Your task to perform on an android device: toggle show notifications on the lock screen Image 0: 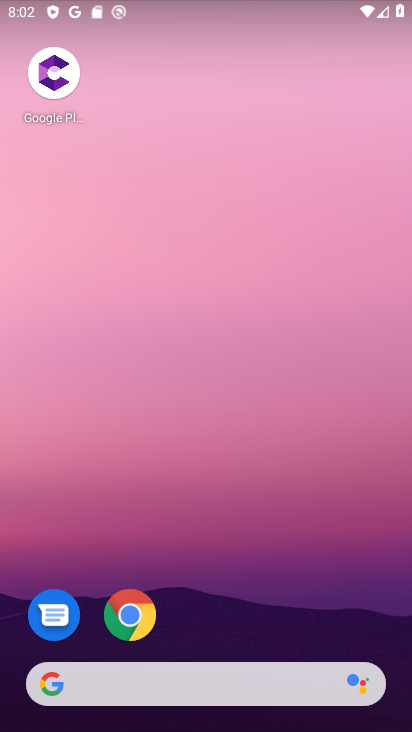
Step 0: press home button
Your task to perform on an android device: toggle show notifications on the lock screen Image 1: 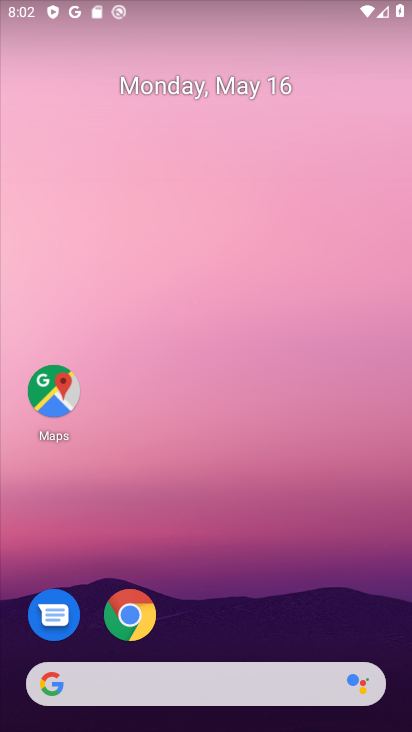
Step 1: drag from (71, 341) to (182, 80)
Your task to perform on an android device: toggle show notifications on the lock screen Image 2: 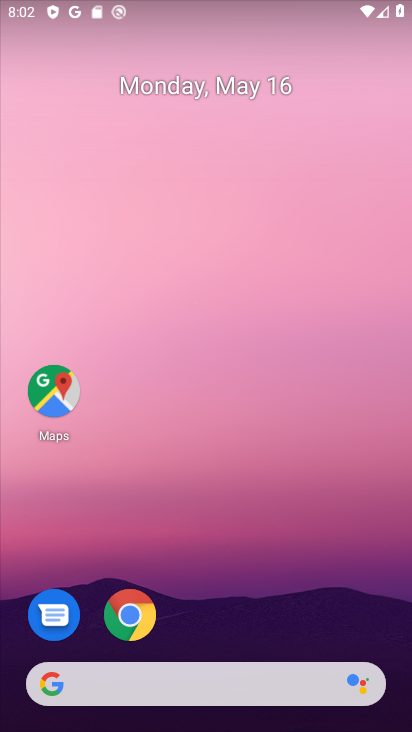
Step 2: drag from (18, 625) to (268, 66)
Your task to perform on an android device: toggle show notifications on the lock screen Image 3: 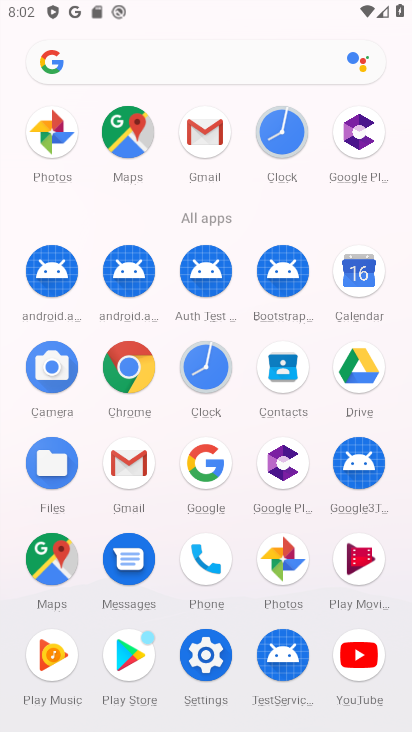
Step 3: click (189, 647)
Your task to perform on an android device: toggle show notifications on the lock screen Image 4: 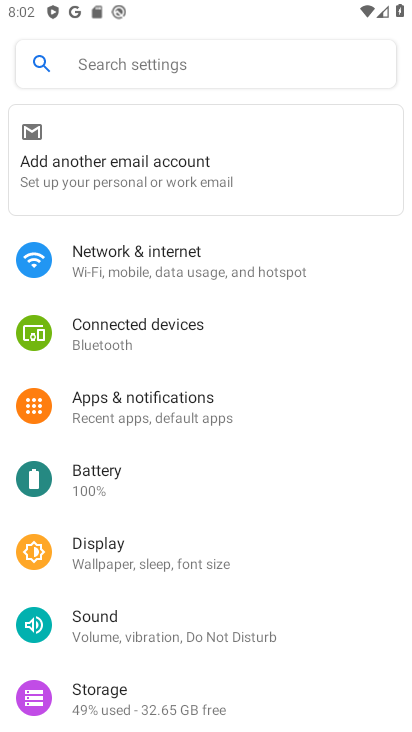
Step 4: click (140, 382)
Your task to perform on an android device: toggle show notifications on the lock screen Image 5: 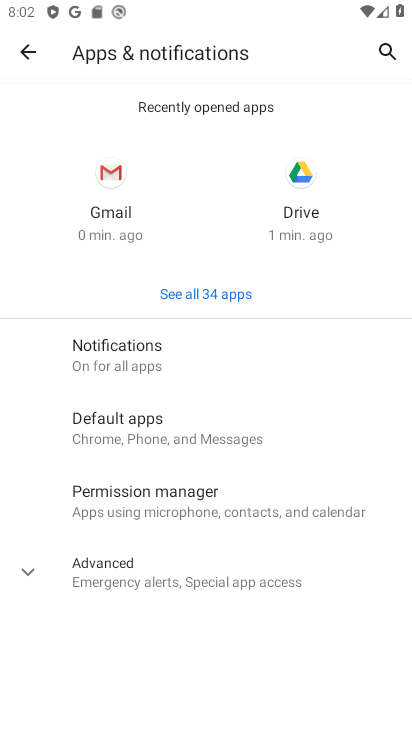
Step 5: click (123, 347)
Your task to perform on an android device: toggle show notifications on the lock screen Image 6: 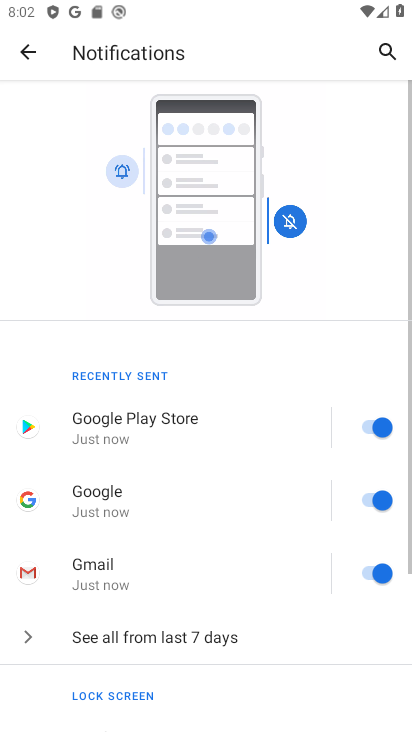
Step 6: drag from (85, 657) to (260, 59)
Your task to perform on an android device: toggle show notifications on the lock screen Image 7: 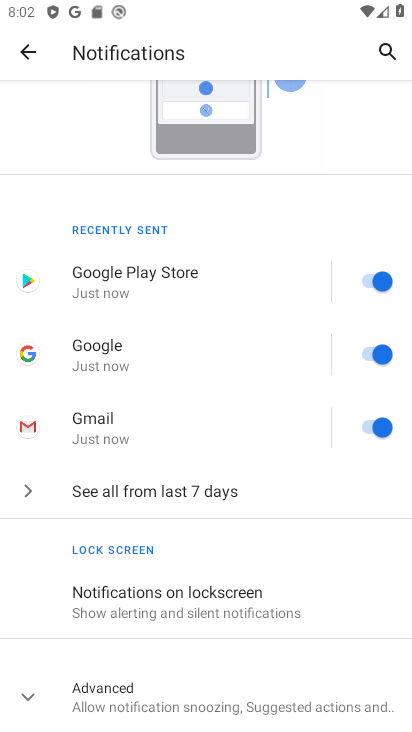
Step 7: click (184, 616)
Your task to perform on an android device: toggle show notifications on the lock screen Image 8: 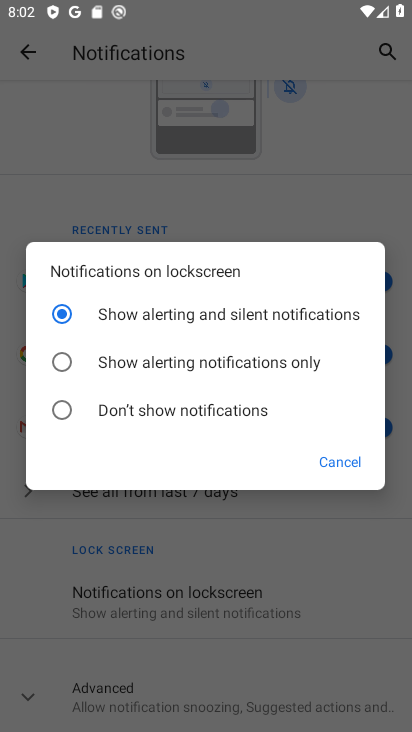
Step 8: click (162, 413)
Your task to perform on an android device: toggle show notifications on the lock screen Image 9: 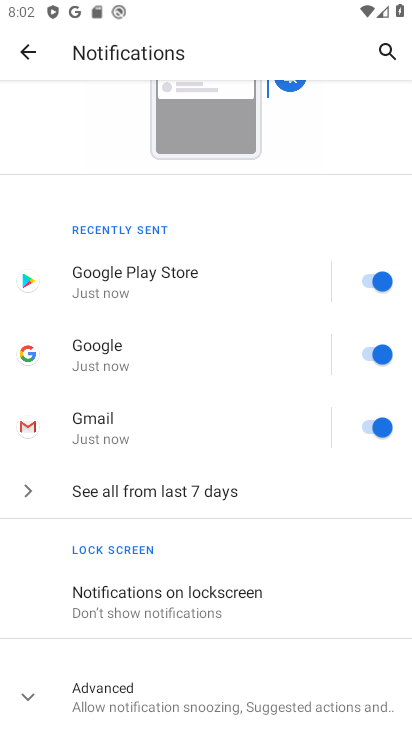
Step 9: task complete